Your task to perform on an android device: open a bookmark in the chrome app Image 0: 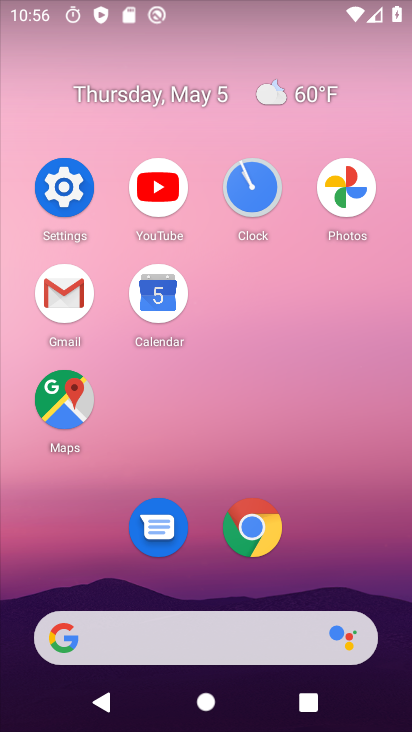
Step 0: click (277, 559)
Your task to perform on an android device: open a bookmark in the chrome app Image 1: 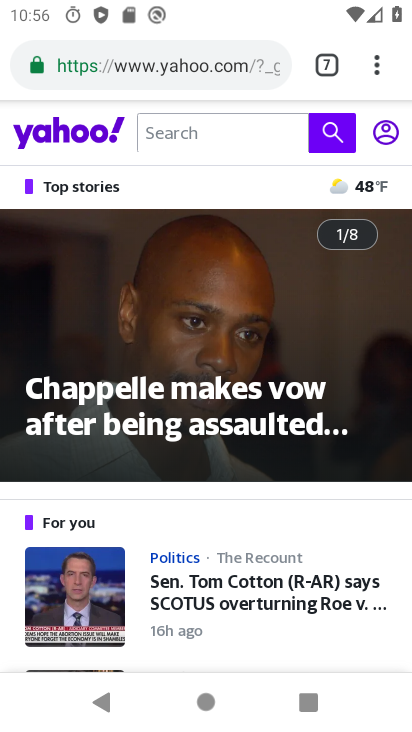
Step 1: click (384, 59)
Your task to perform on an android device: open a bookmark in the chrome app Image 2: 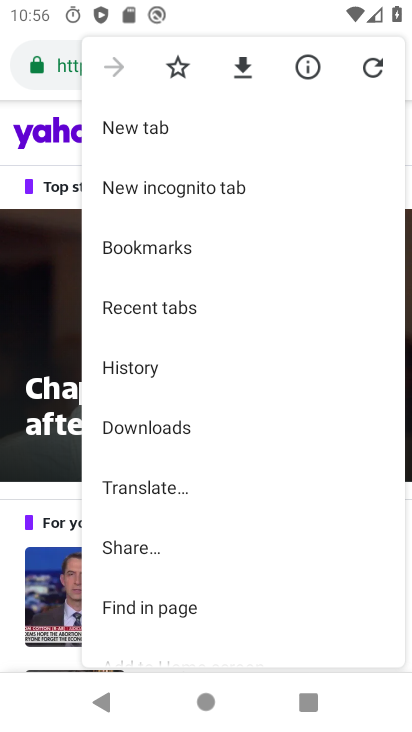
Step 2: click (195, 235)
Your task to perform on an android device: open a bookmark in the chrome app Image 3: 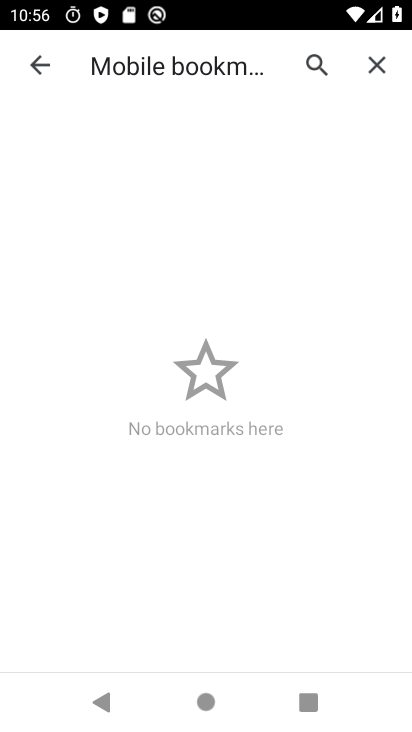
Step 3: task complete